Your task to perform on an android device: When is my next appointment? Image 0: 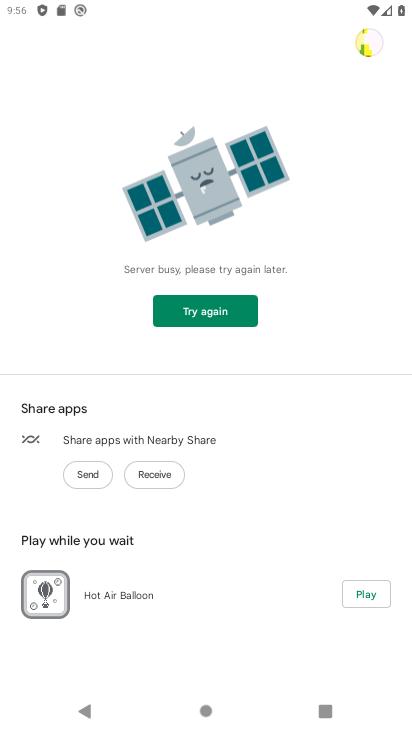
Step 0: press home button
Your task to perform on an android device: When is my next appointment? Image 1: 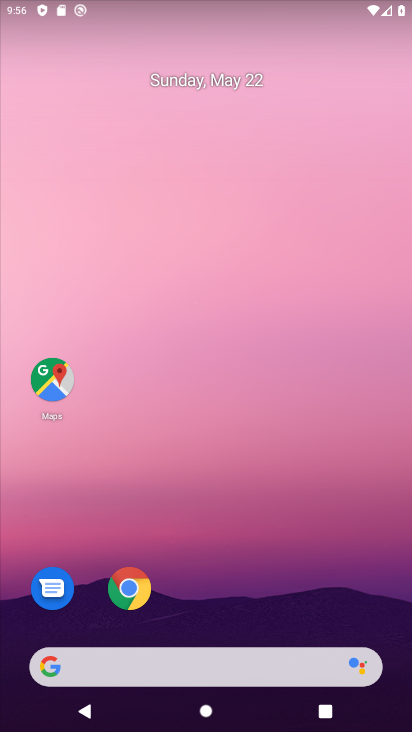
Step 1: drag from (227, 730) to (207, 223)
Your task to perform on an android device: When is my next appointment? Image 2: 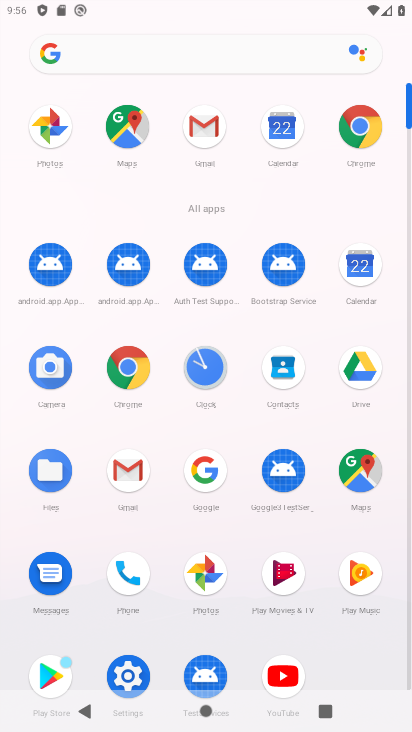
Step 2: click (279, 123)
Your task to perform on an android device: When is my next appointment? Image 3: 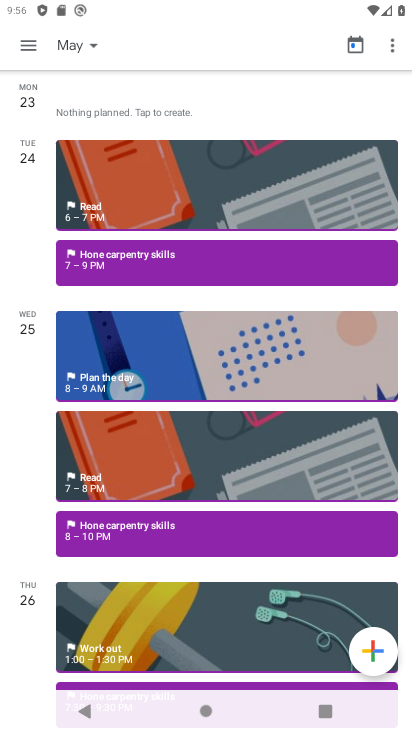
Step 3: click (71, 35)
Your task to perform on an android device: When is my next appointment? Image 4: 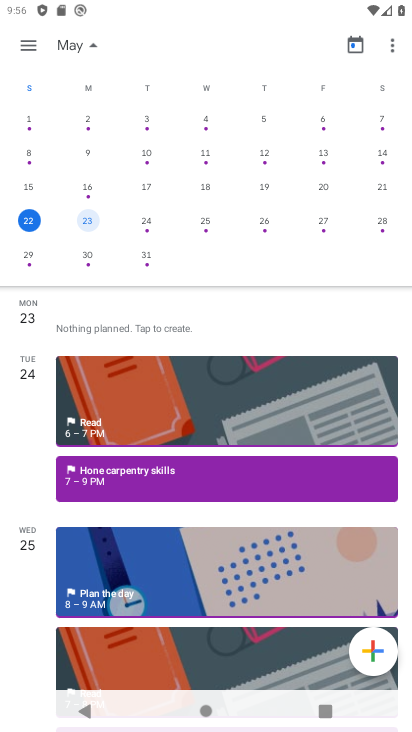
Step 4: click (86, 217)
Your task to perform on an android device: When is my next appointment? Image 5: 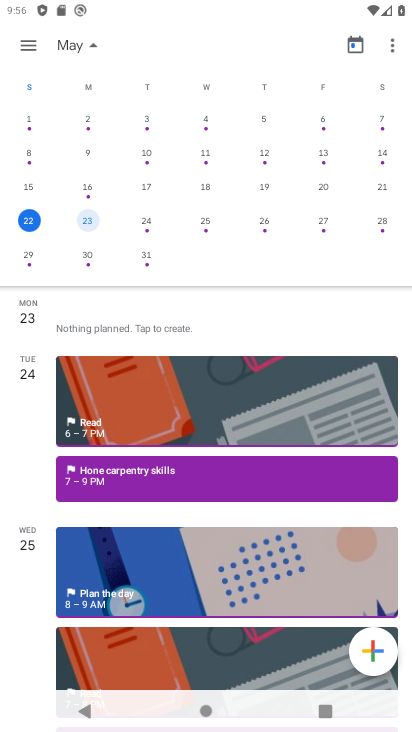
Step 5: click (86, 217)
Your task to perform on an android device: When is my next appointment? Image 6: 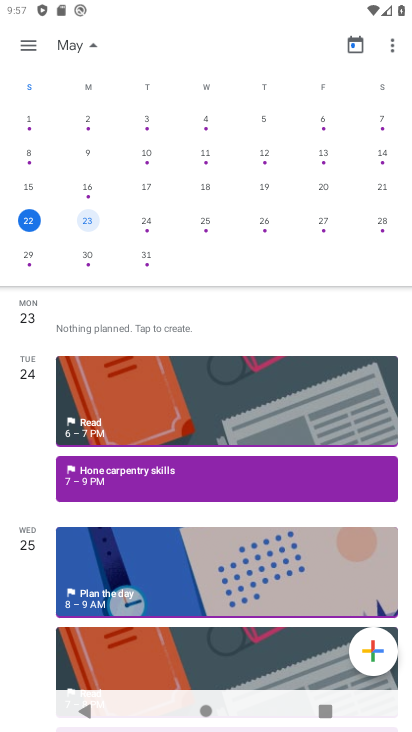
Step 6: task complete